Your task to perform on an android device: Open the phone app and click the voicemail tab. Image 0: 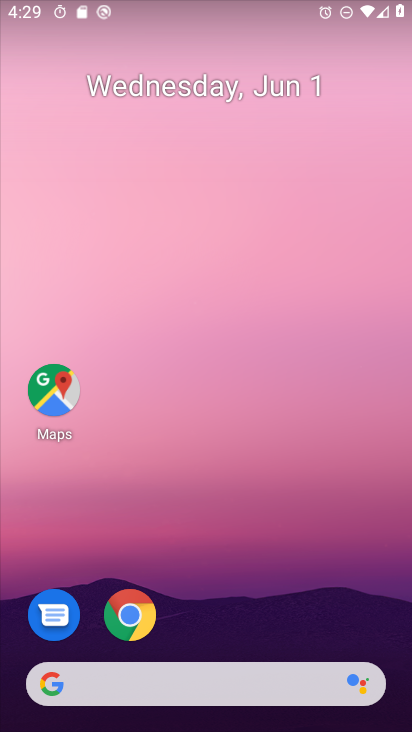
Step 0: drag from (257, 590) to (275, 41)
Your task to perform on an android device: Open the phone app and click the voicemail tab. Image 1: 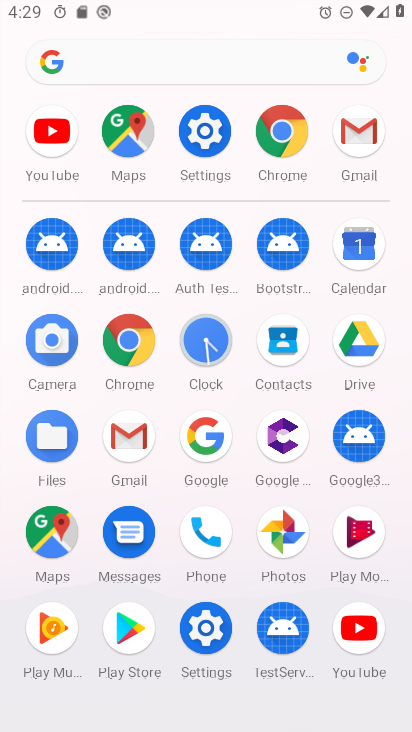
Step 1: click (203, 535)
Your task to perform on an android device: Open the phone app and click the voicemail tab. Image 2: 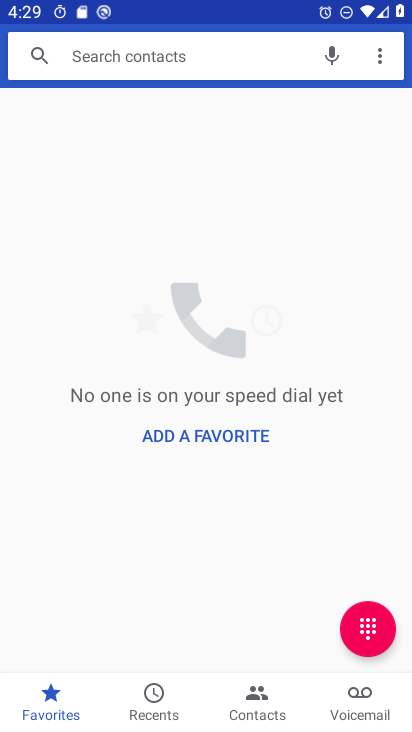
Step 2: click (359, 713)
Your task to perform on an android device: Open the phone app and click the voicemail tab. Image 3: 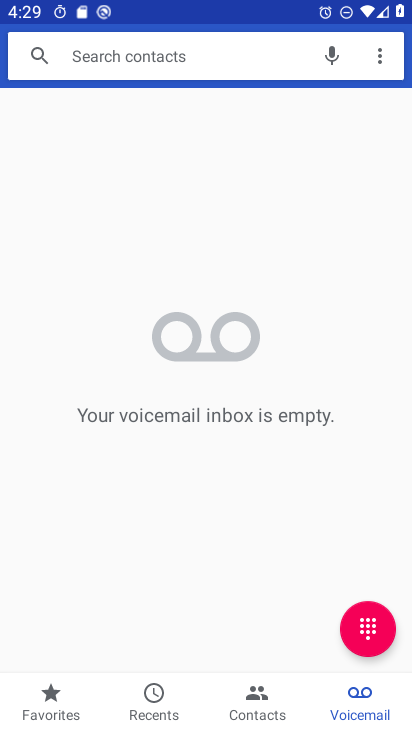
Step 3: task complete